Your task to perform on an android device: Go to Yahoo.com Image 0: 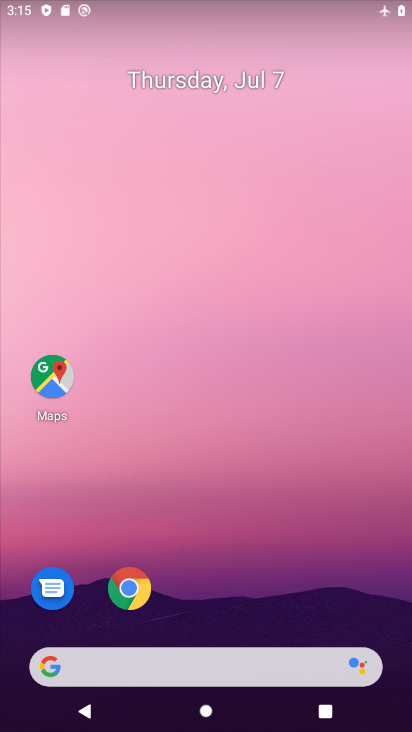
Step 0: drag from (279, 701) to (146, 7)
Your task to perform on an android device: Go to Yahoo.com Image 1: 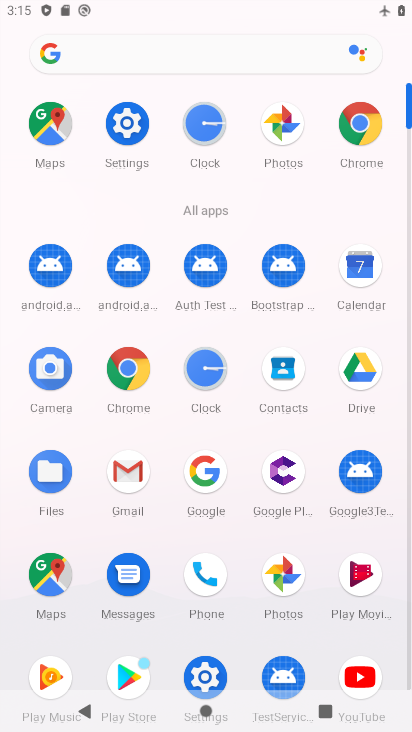
Step 1: drag from (283, 528) to (0, 128)
Your task to perform on an android device: Go to Yahoo.com Image 2: 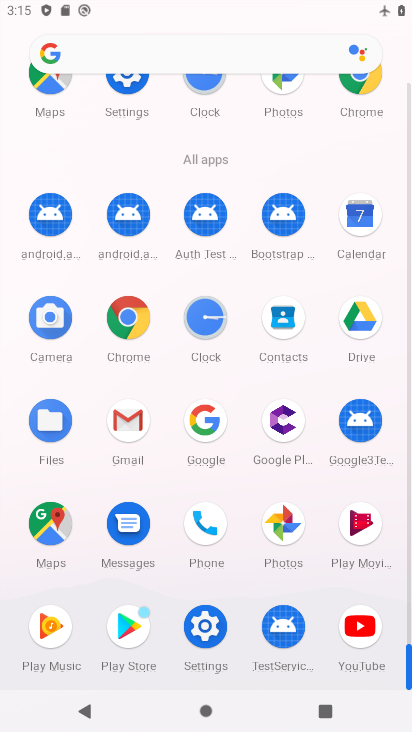
Step 2: click (127, 326)
Your task to perform on an android device: Go to Yahoo.com Image 3: 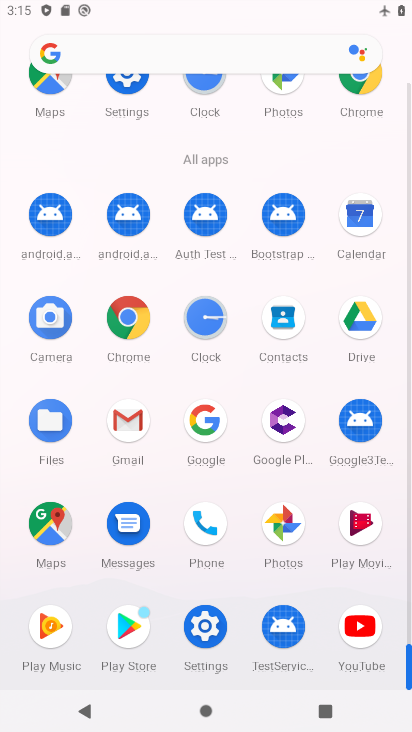
Step 3: click (127, 326)
Your task to perform on an android device: Go to Yahoo.com Image 4: 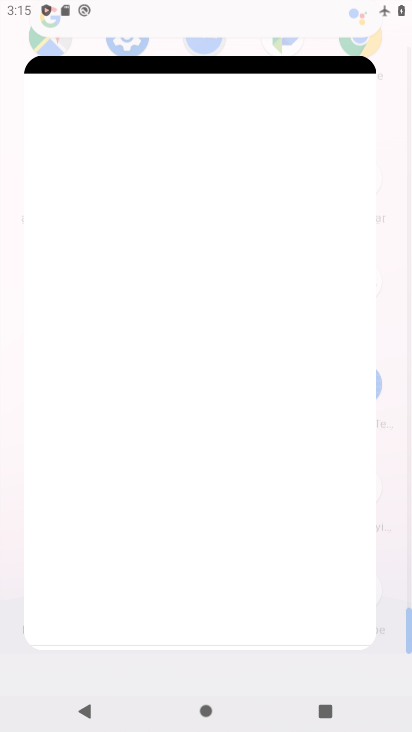
Step 4: click (127, 324)
Your task to perform on an android device: Go to Yahoo.com Image 5: 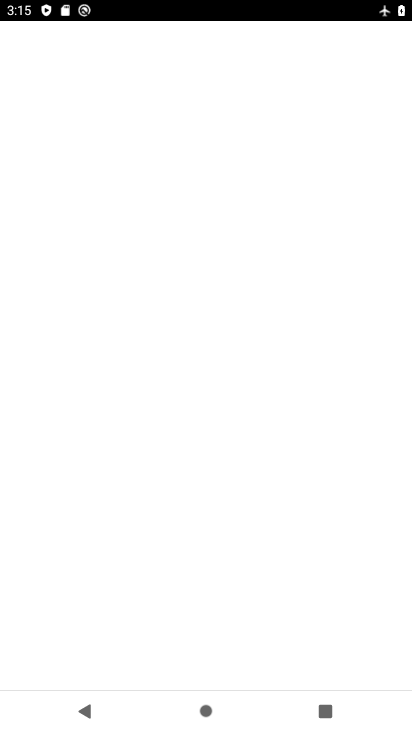
Step 5: click (125, 322)
Your task to perform on an android device: Go to Yahoo.com Image 6: 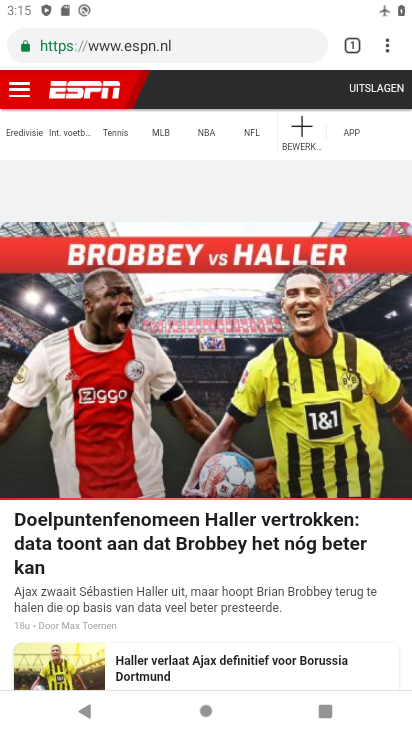
Step 6: click (385, 48)
Your task to perform on an android device: Go to Yahoo.com Image 7: 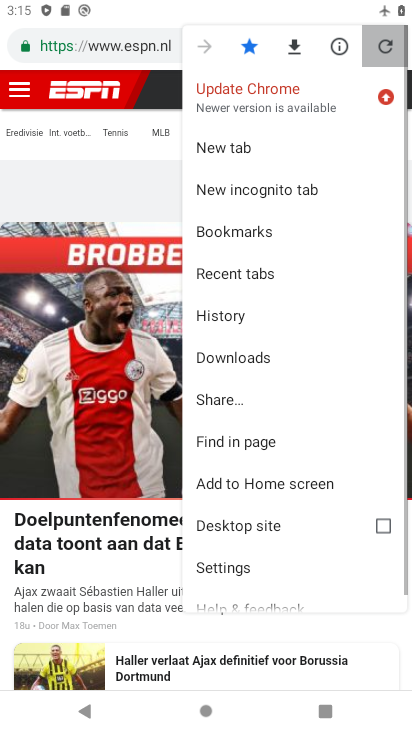
Step 7: click (375, 62)
Your task to perform on an android device: Go to Yahoo.com Image 8: 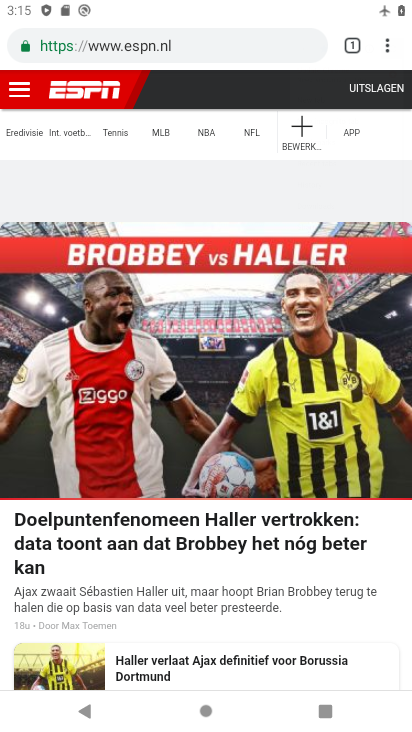
Step 8: click (257, 141)
Your task to perform on an android device: Go to Yahoo.com Image 9: 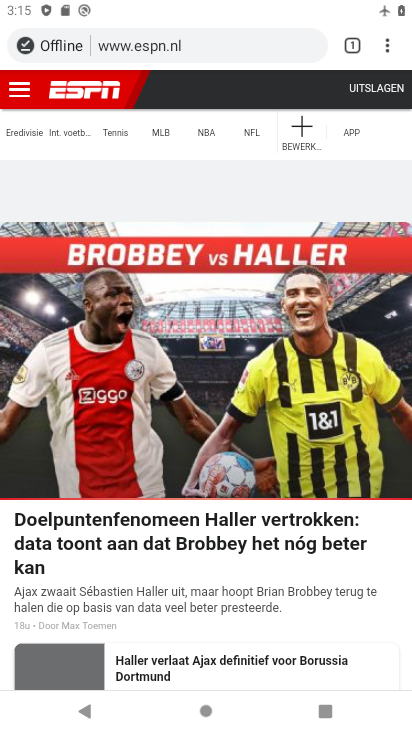
Step 9: click (388, 50)
Your task to perform on an android device: Go to Yahoo.com Image 10: 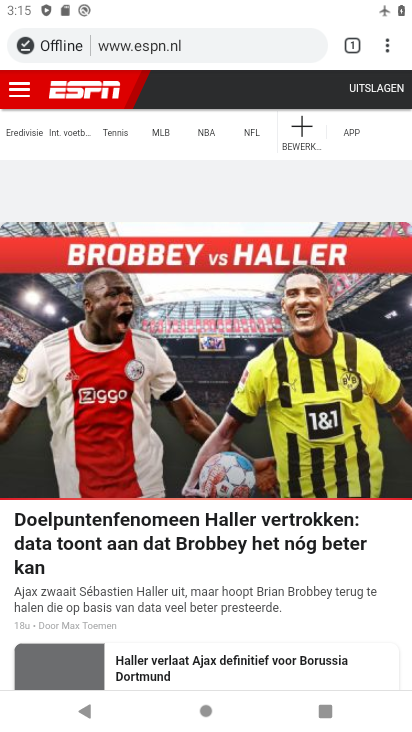
Step 10: drag from (388, 50) to (215, 146)
Your task to perform on an android device: Go to Yahoo.com Image 11: 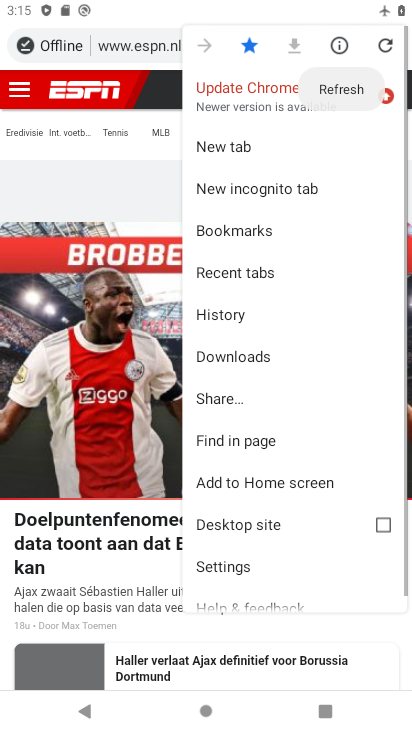
Step 11: click (204, 135)
Your task to perform on an android device: Go to Yahoo.com Image 12: 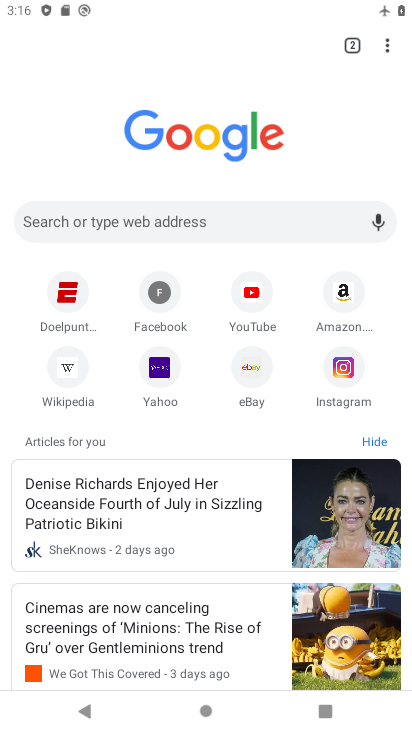
Step 12: click (165, 360)
Your task to perform on an android device: Go to Yahoo.com Image 13: 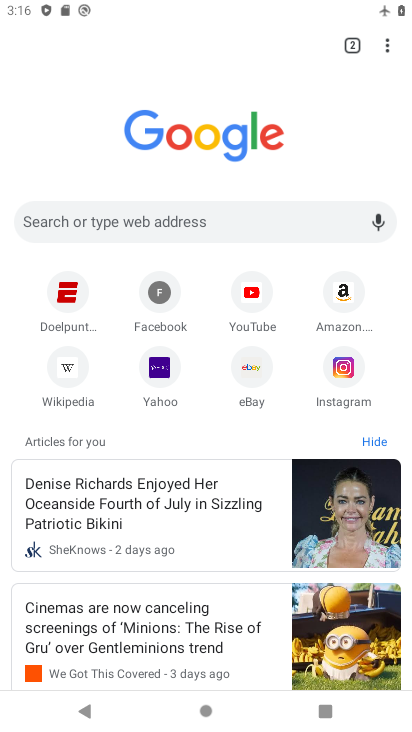
Step 13: click (166, 362)
Your task to perform on an android device: Go to Yahoo.com Image 14: 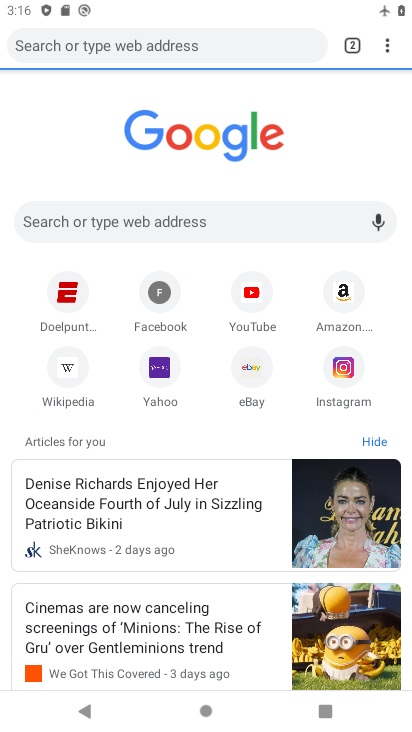
Step 14: click (166, 362)
Your task to perform on an android device: Go to Yahoo.com Image 15: 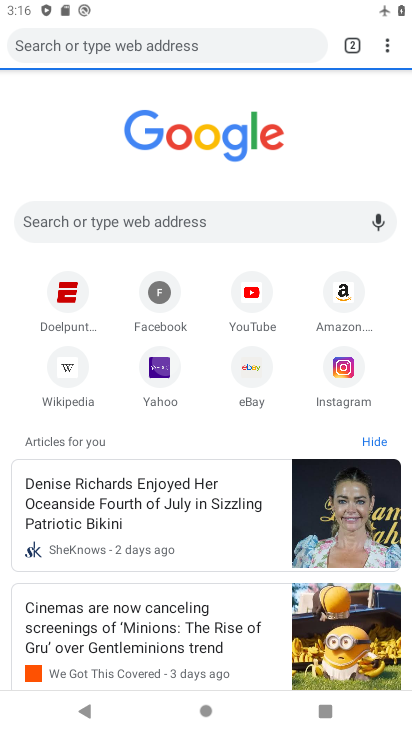
Step 15: click (166, 362)
Your task to perform on an android device: Go to Yahoo.com Image 16: 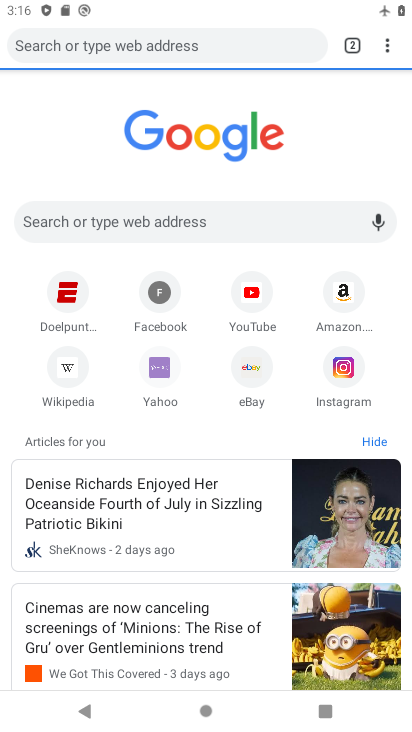
Step 16: click (162, 365)
Your task to perform on an android device: Go to Yahoo.com Image 17: 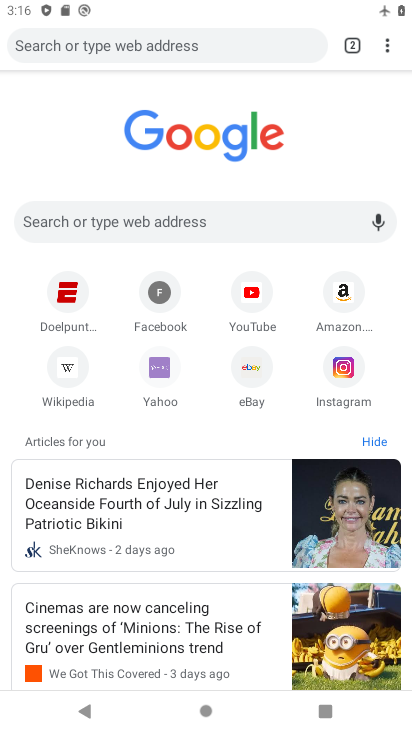
Step 17: click (159, 364)
Your task to perform on an android device: Go to Yahoo.com Image 18: 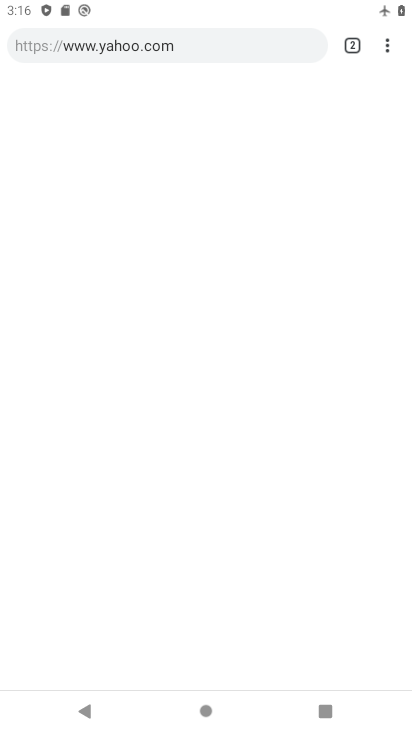
Step 18: click (158, 361)
Your task to perform on an android device: Go to Yahoo.com Image 19: 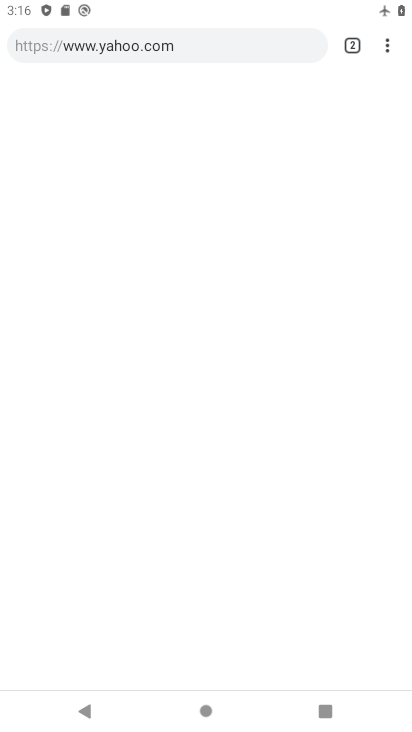
Step 19: click (152, 355)
Your task to perform on an android device: Go to Yahoo.com Image 20: 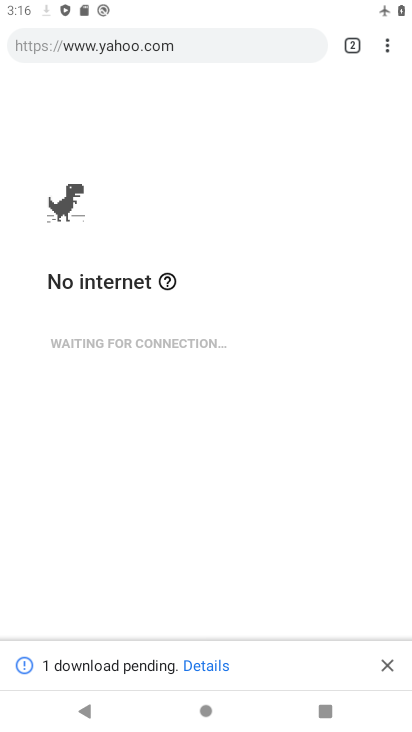
Step 20: task complete